Your task to perform on an android device: turn on javascript in the chrome app Image 0: 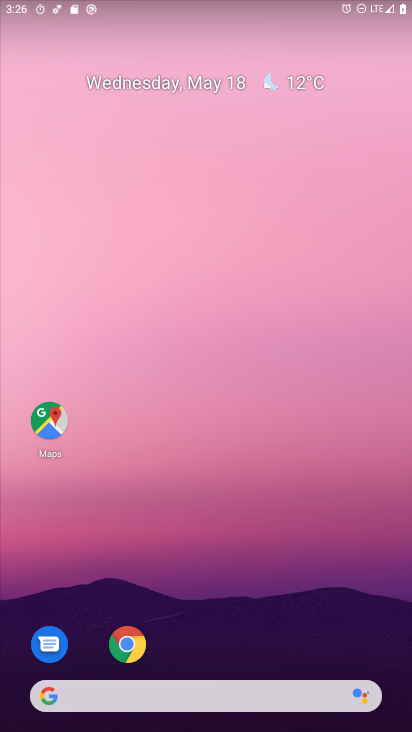
Step 0: click (128, 641)
Your task to perform on an android device: turn on javascript in the chrome app Image 1: 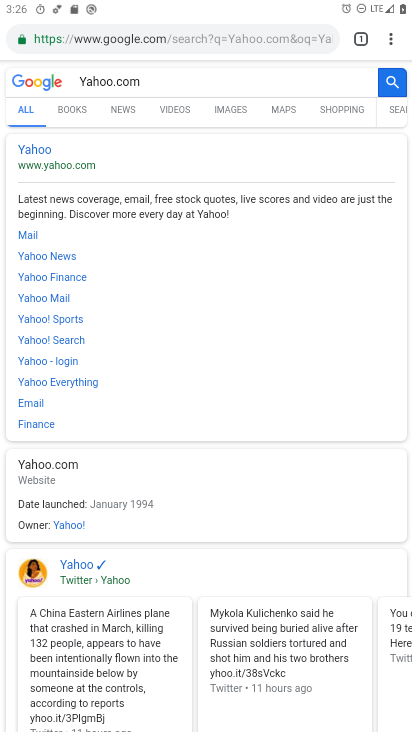
Step 1: click (391, 32)
Your task to perform on an android device: turn on javascript in the chrome app Image 2: 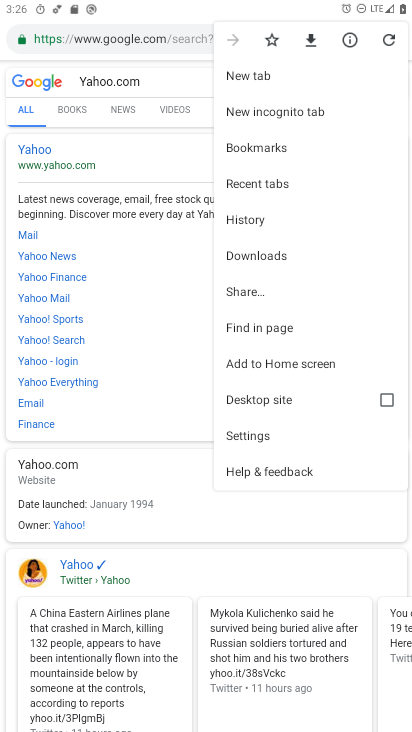
Step 2: click (249, 432)
Your task to perform on an android device: turn on javascript in the chrome app Image 3: 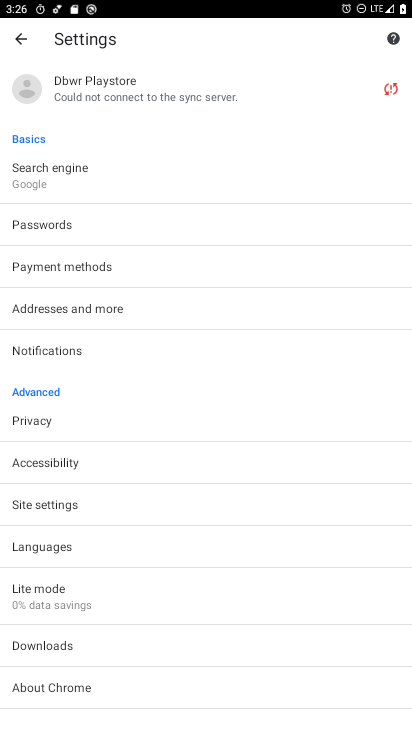
Step 3: click (28, 504)
Your task to perform on an android device: turn on javascript in the chrome app Image 4: 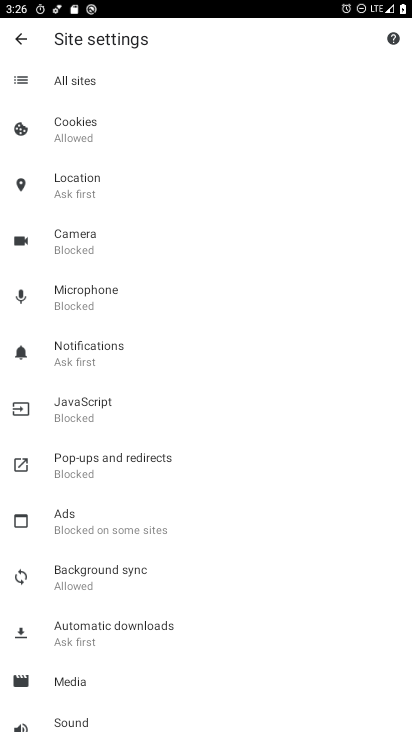
Step 4: click (69, 404)
Your task to perform on an android device: turn on javascript in the chrome app Image 5: 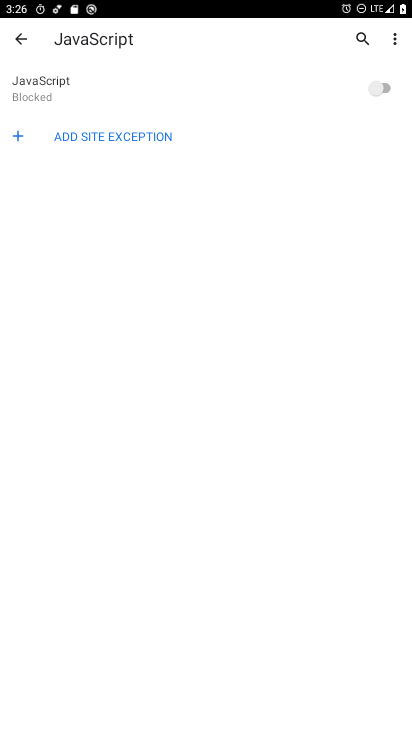
Step 5: click (385, 83)
Your task to perform on an android device: turn on javascript in the chrome app Image 6: 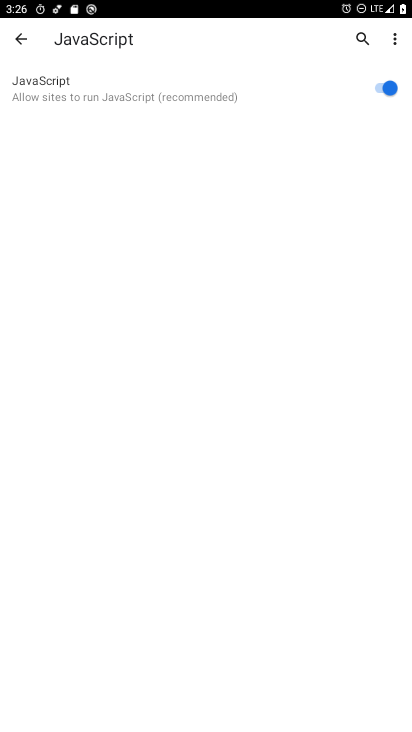
Step 6: task complete